Your task to perform on an android device: change the clock style Image 0: 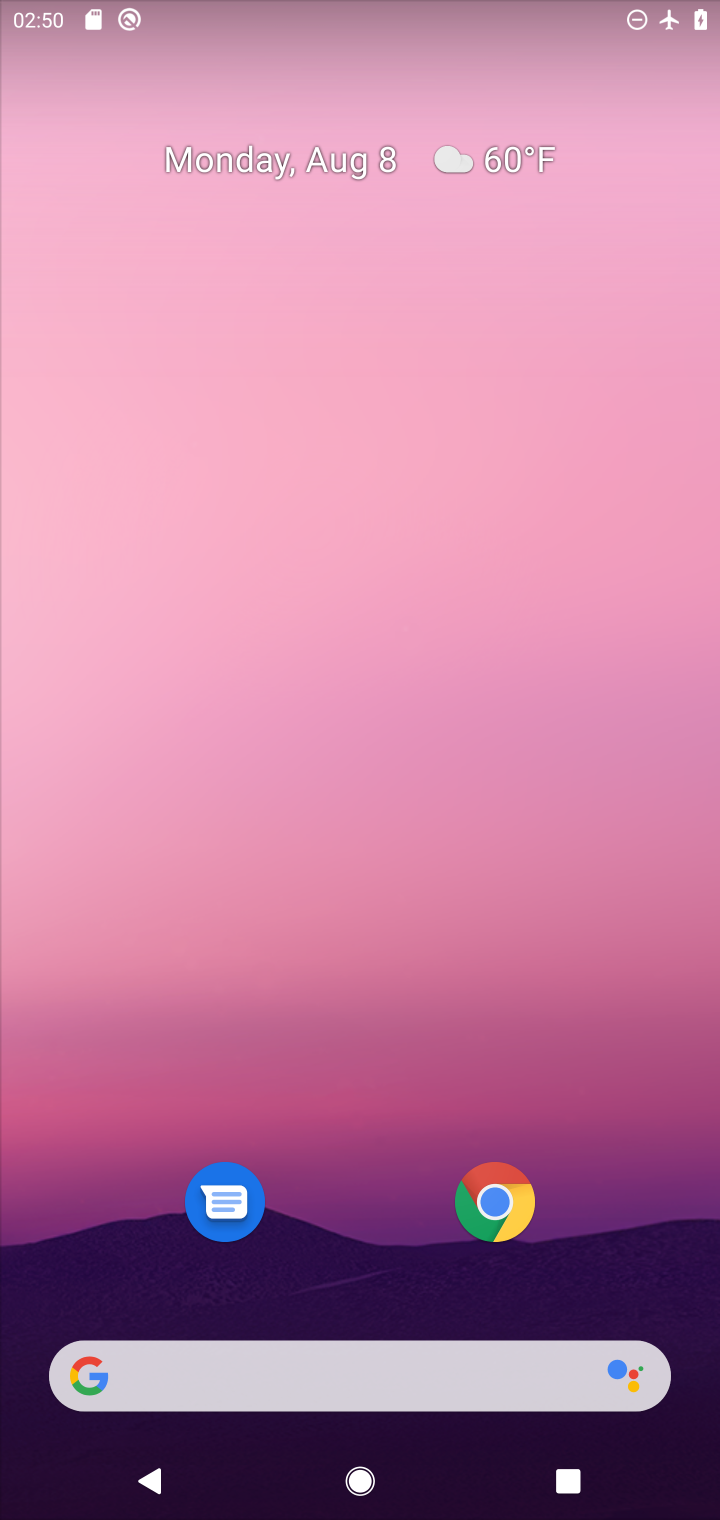
Step 0: press home button
Your task to perform on an android device: change the clock style Image 1: 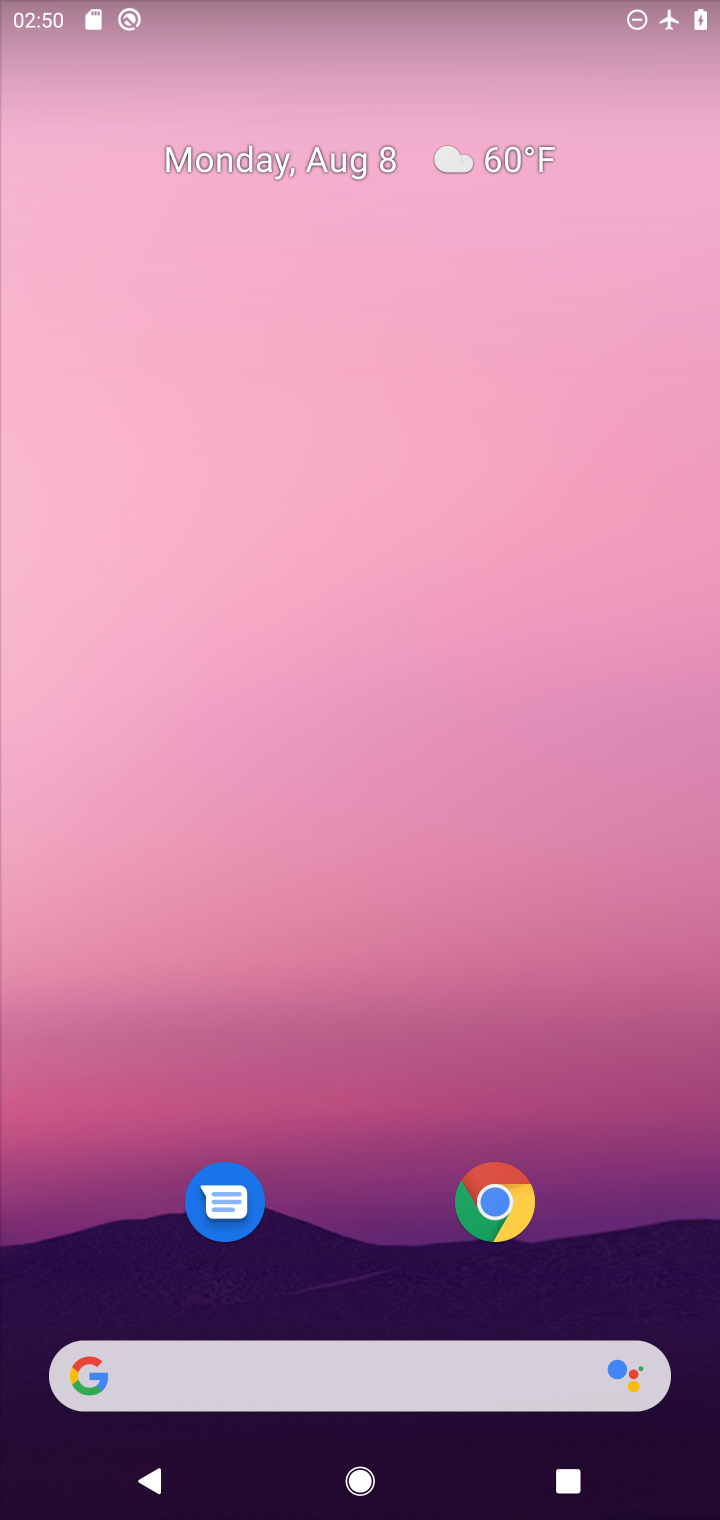
Step 1: drag from (373, 1190) to (526, 276)
Your task to perform on an android device: change the clock style Image 2: 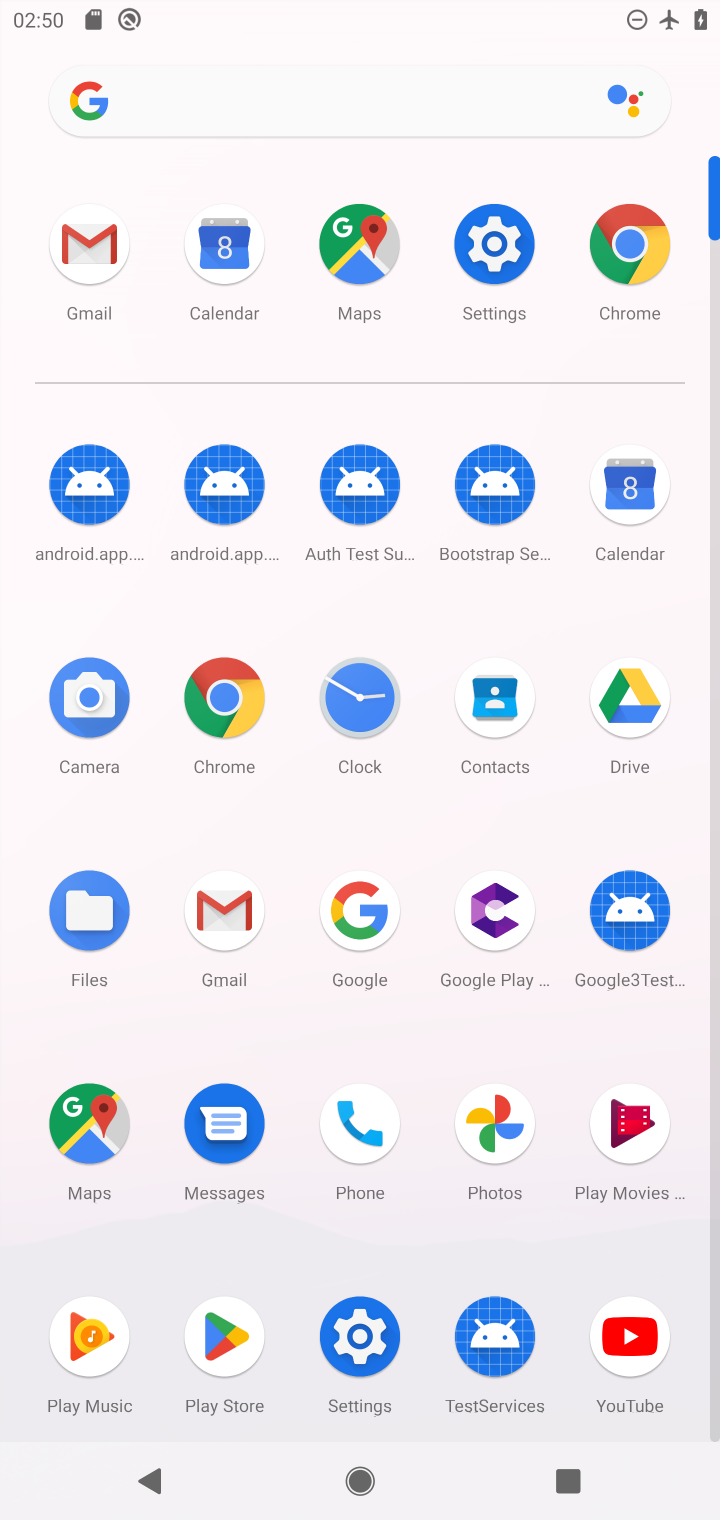
Step 2: click (357, 711)
Your task to perform on an android device: change the clock style Image 3: 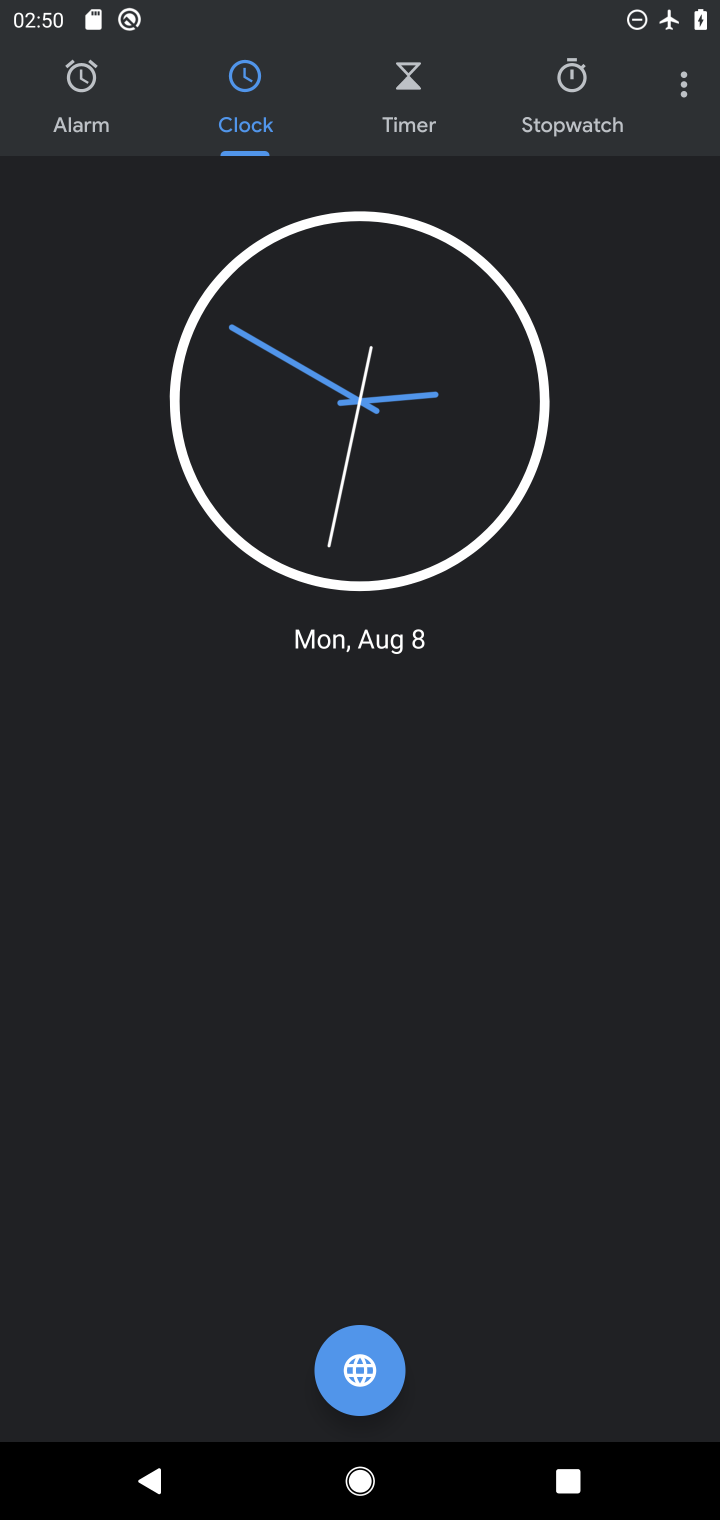
Step 3: click (681, 96)
Your task to perform on an android device: change the clock style Image 4: 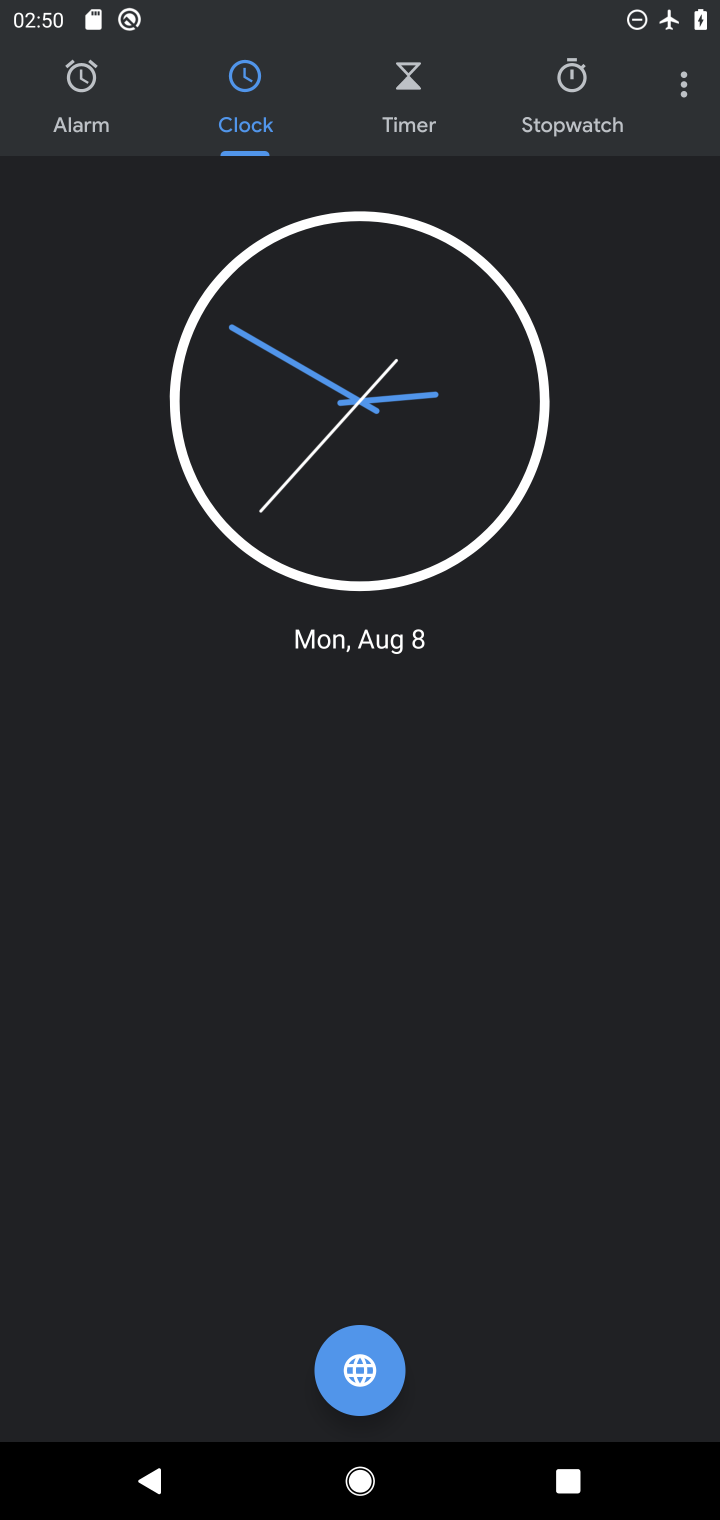
Step 4: click (688, 87)
Your task to perform on an android device: change the clock style Image 5: 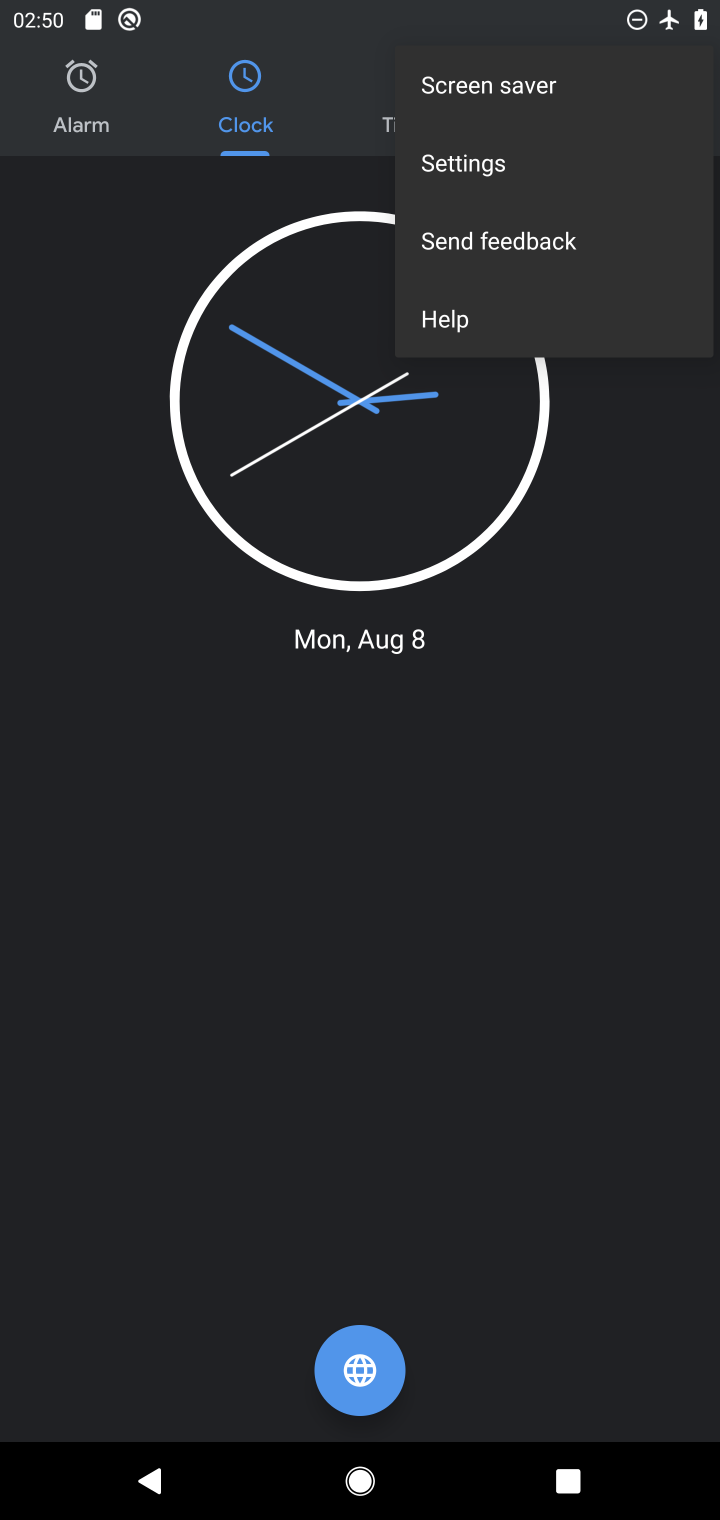
Step 5: click (534, 156)
Your task to perform on an android device: change the clock style Image 6: 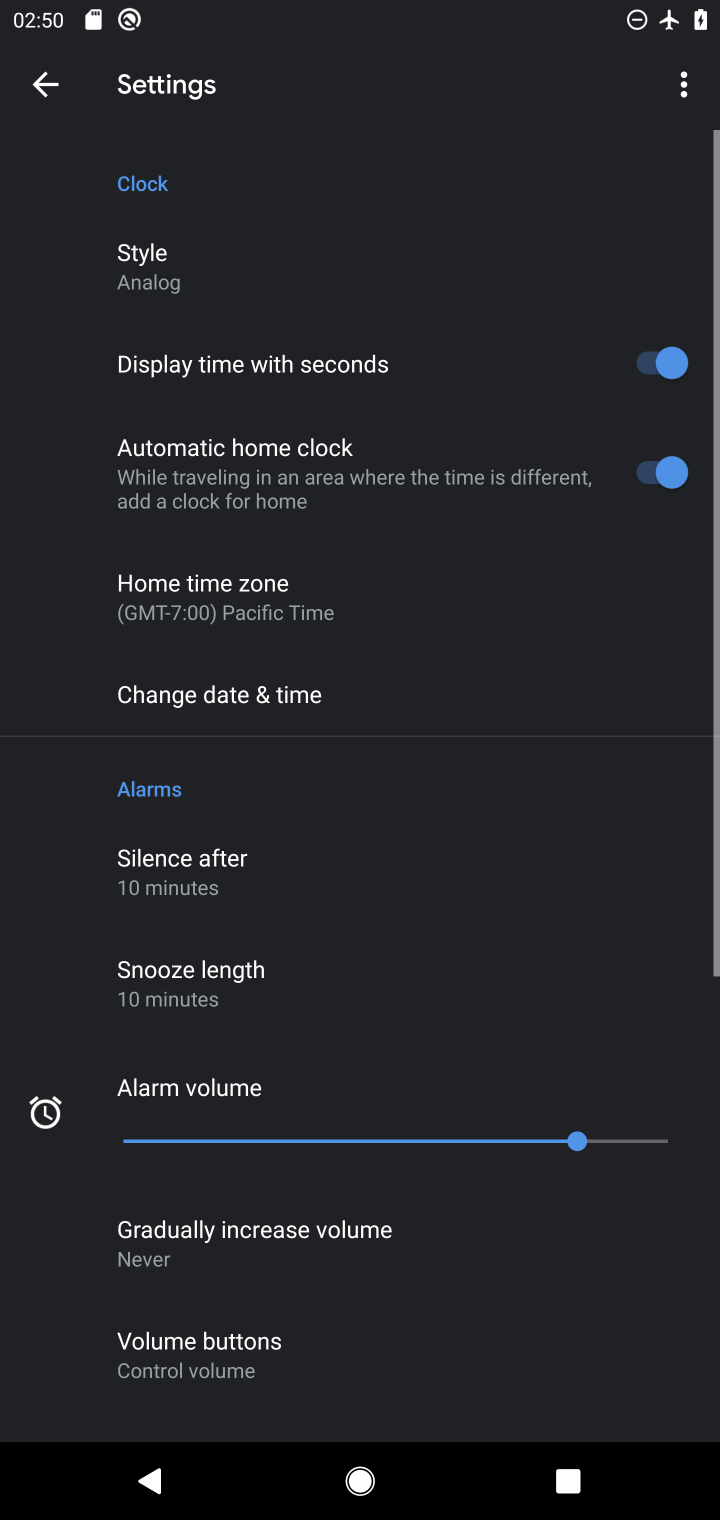
Step 6: drag from (491, 682) to (534, 389)
Your task to perform on an android device: change the clock style Image 7: 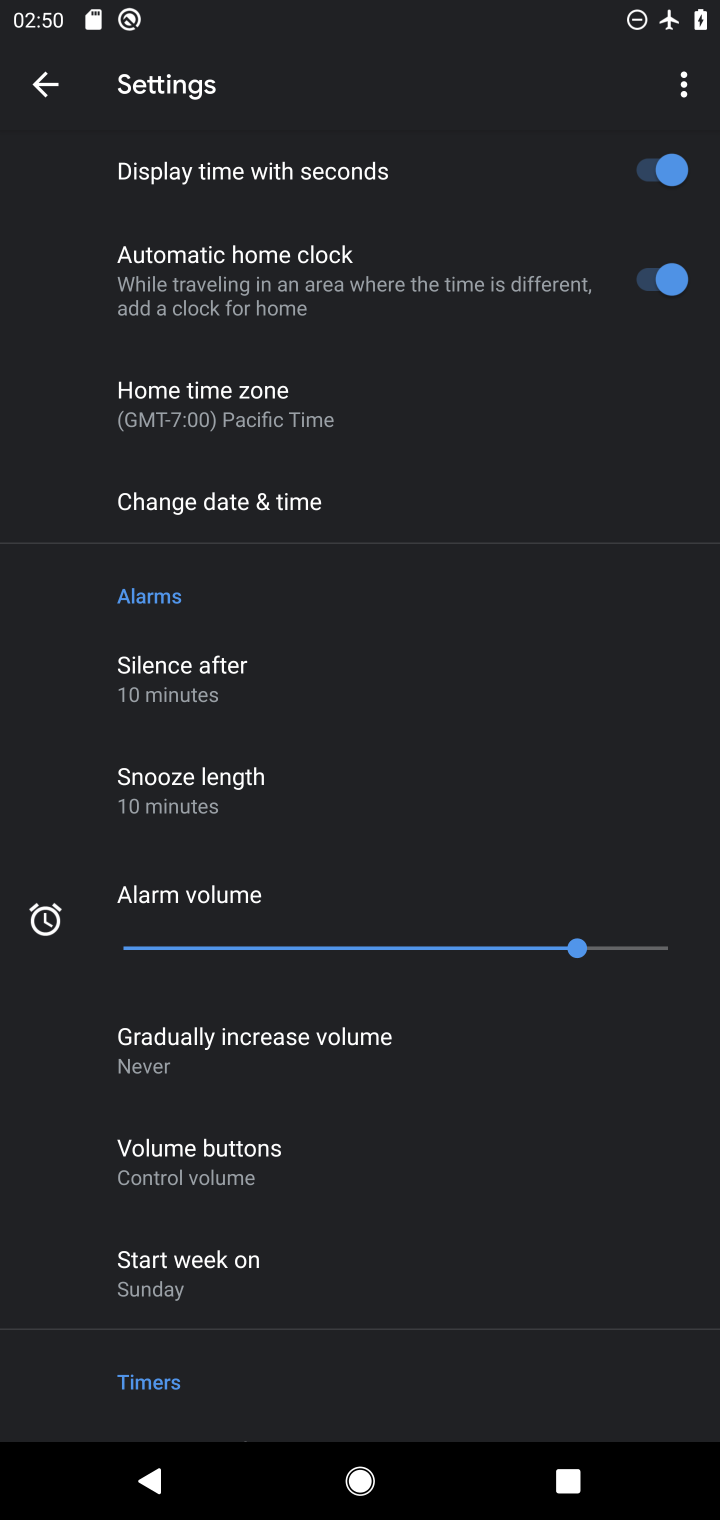
Step 7: drag from (493, 723) to (523, 454)
Your task to perform on an android device: change the clock style Image 8: 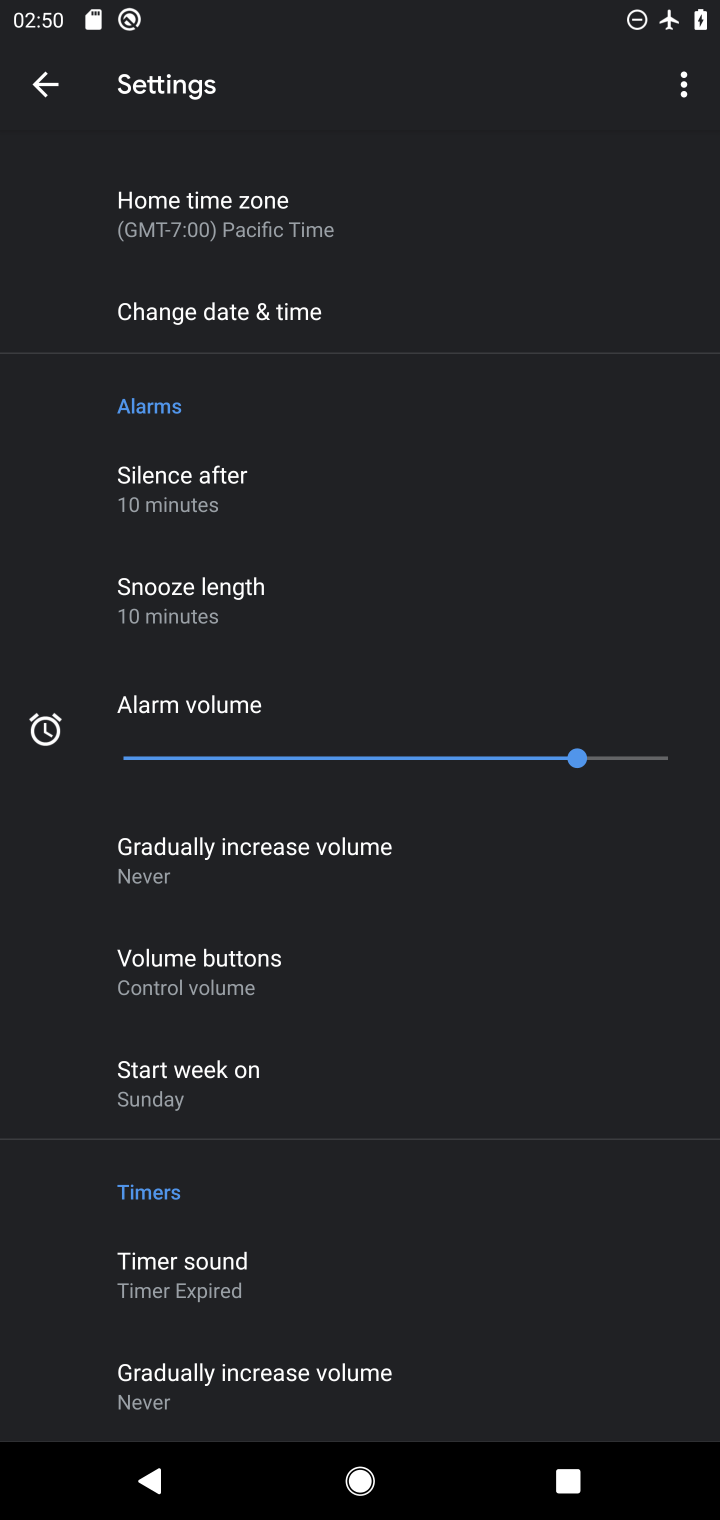
Step 8: drag from (520, 654) to (549, 463)
Your task to perform on an android device: change the clock style Image 9: 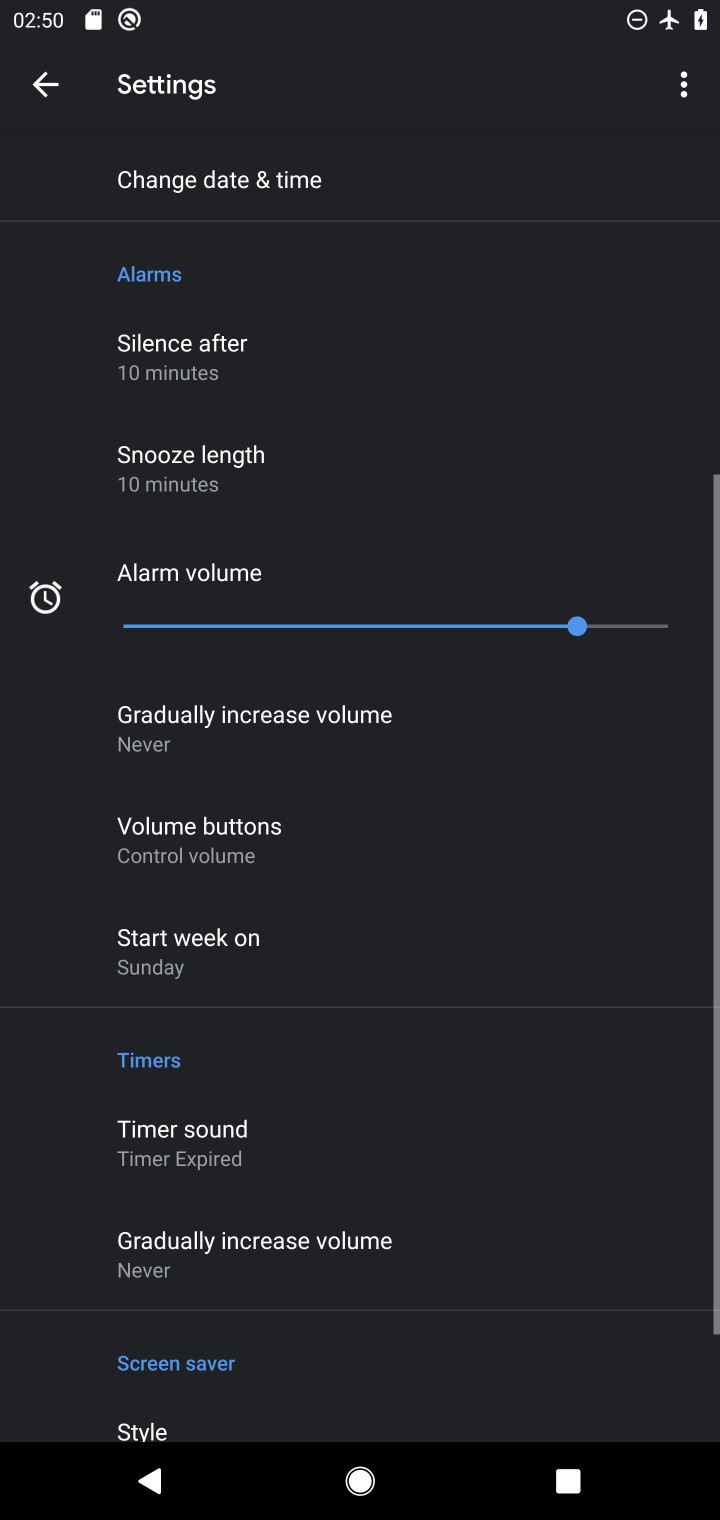
Step 9: drag from (541, 886) to (570, 520)
Your task to perform on an android device: change the clock style Image 10: 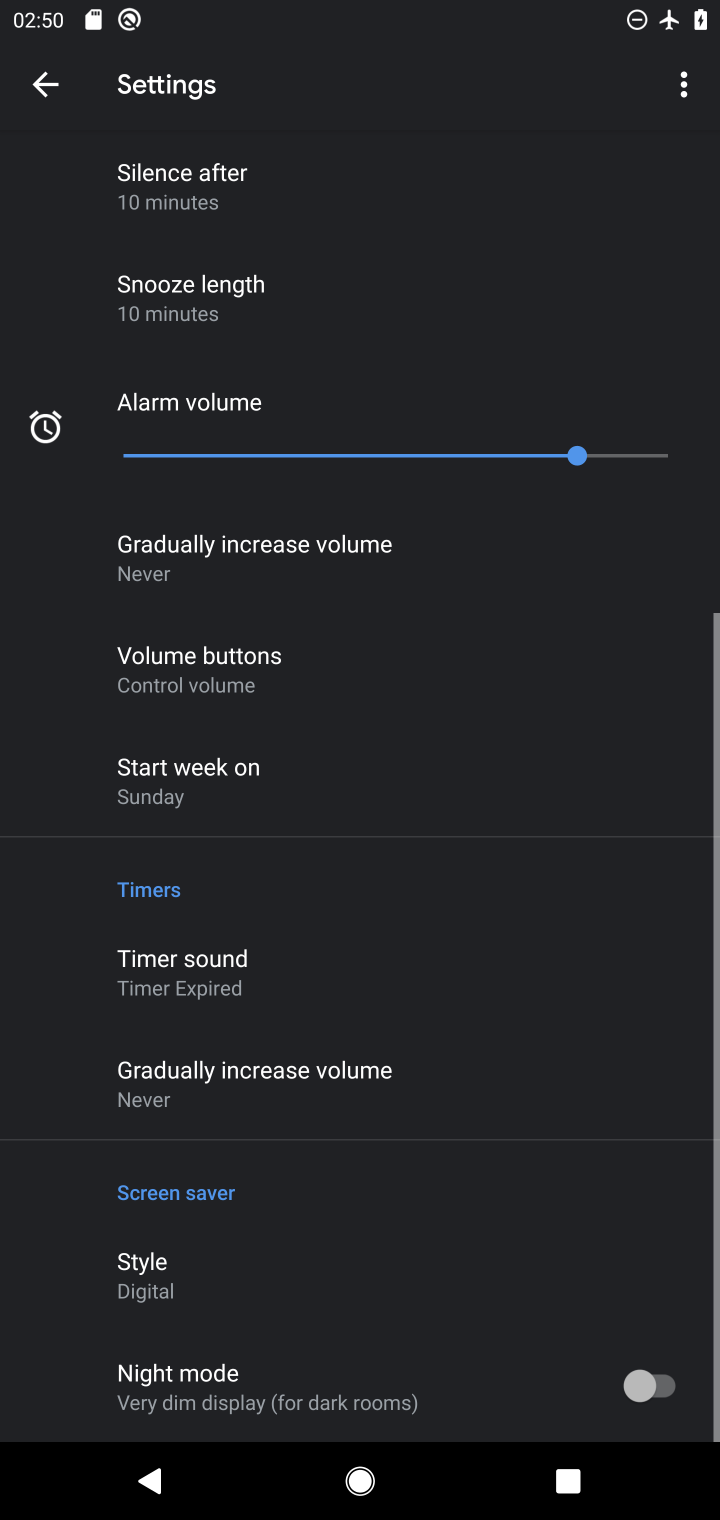
Step 10: drag from (514, 917) to (533, 601)
Your task to perform on an android device: change the clock style Image 11: 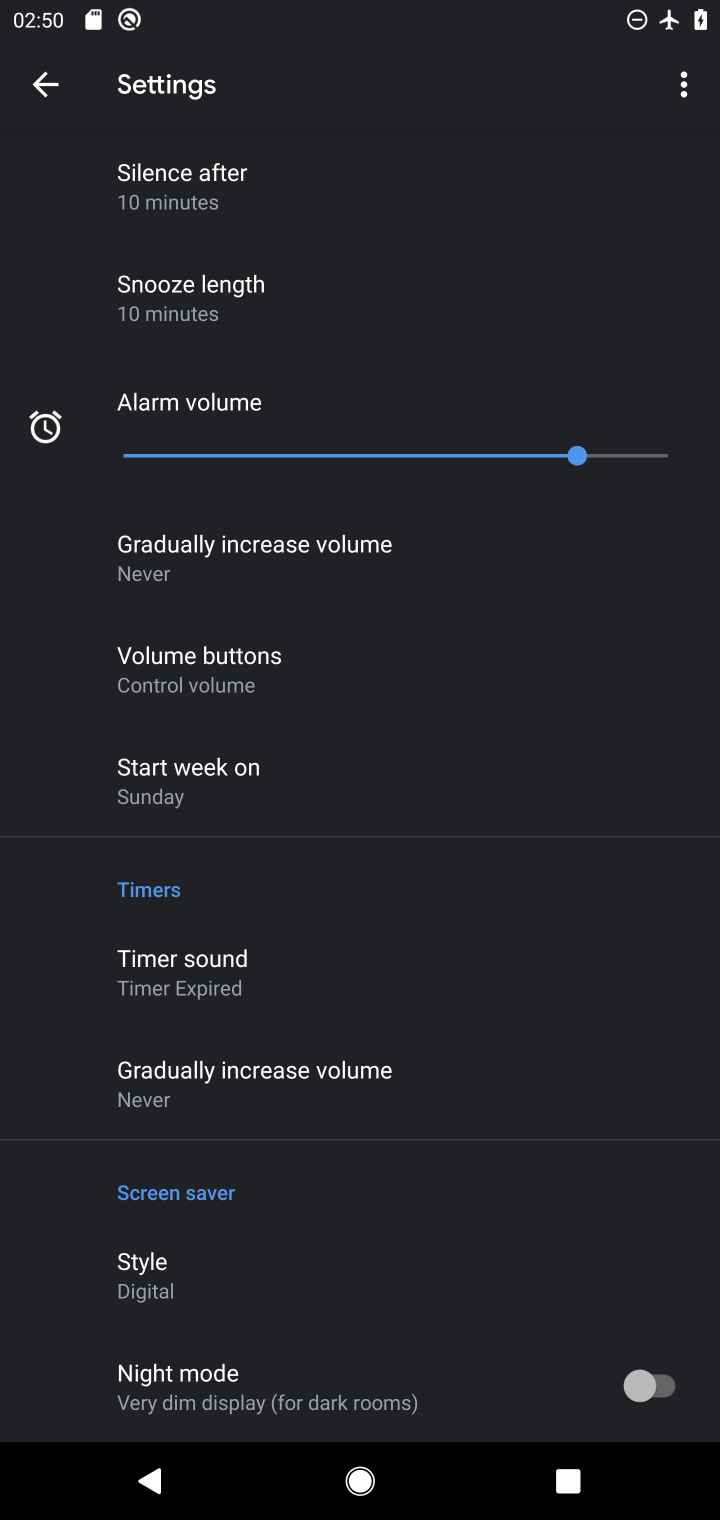
Step 11: drag from (505, 704) to (503, 880)
Your task to perform on an android device: change the clock style Image 12: 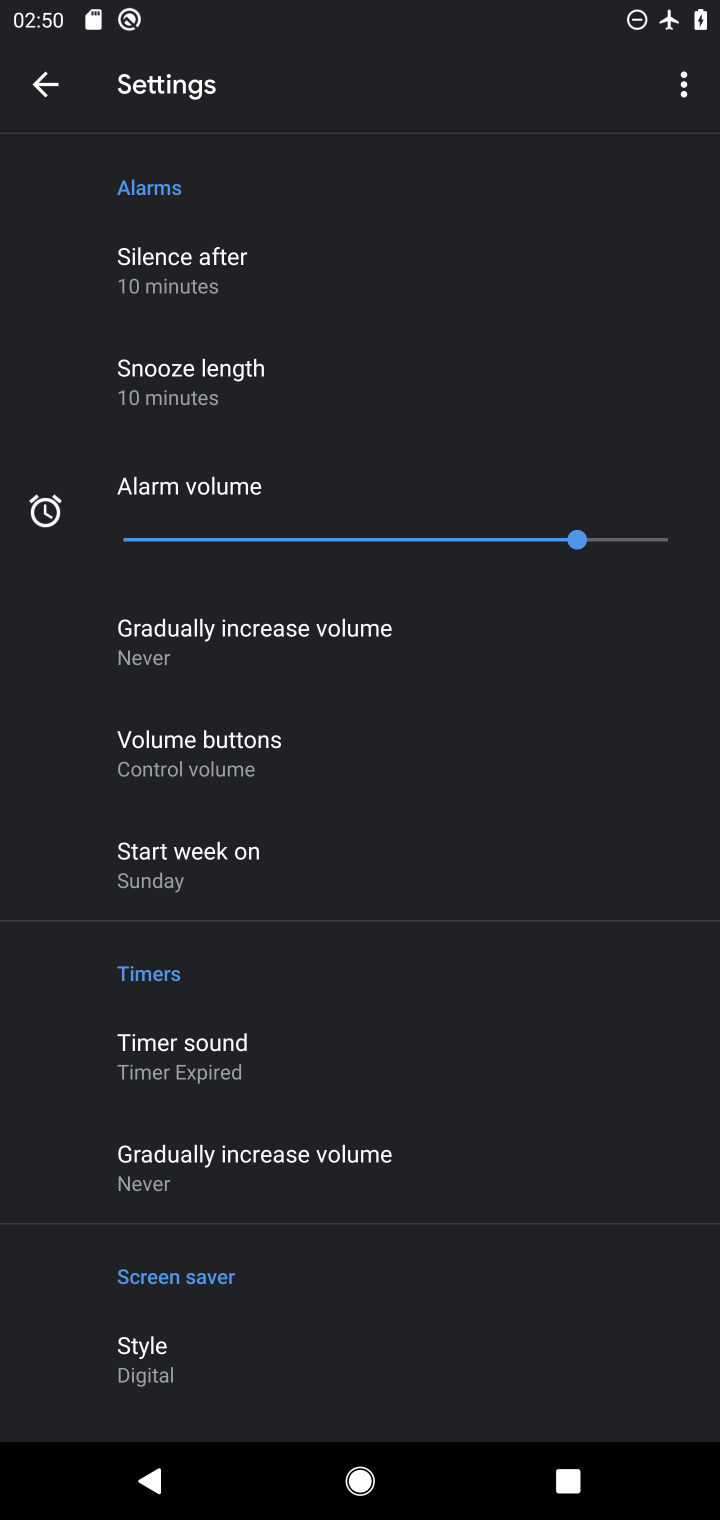
Step 12: drag from (505, 506) to (485, 751)
Your task to perform on an android device: change the clock style Image 13: 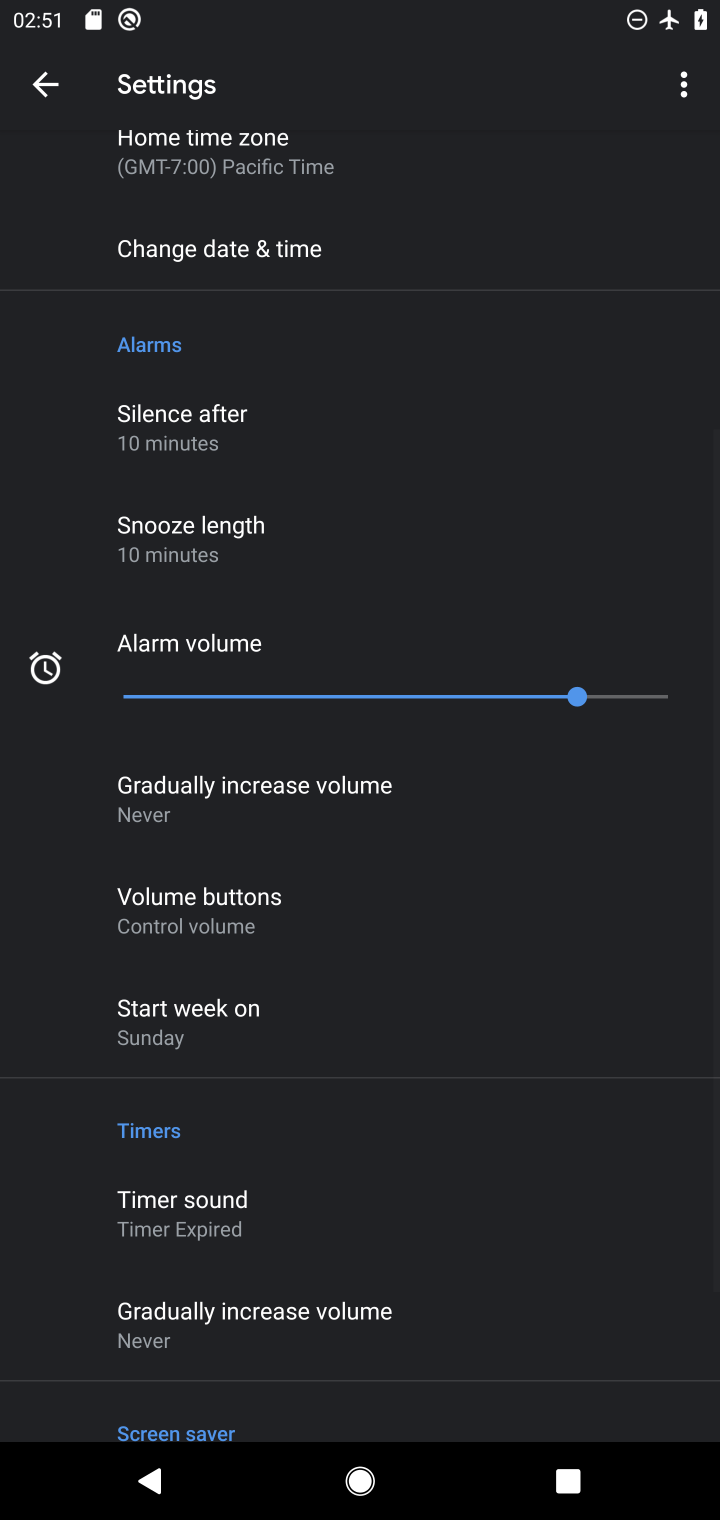
Step 13: drag from (515, 380) to (472, 746)
Your task to perform on an android device: change the clock style Image 14: 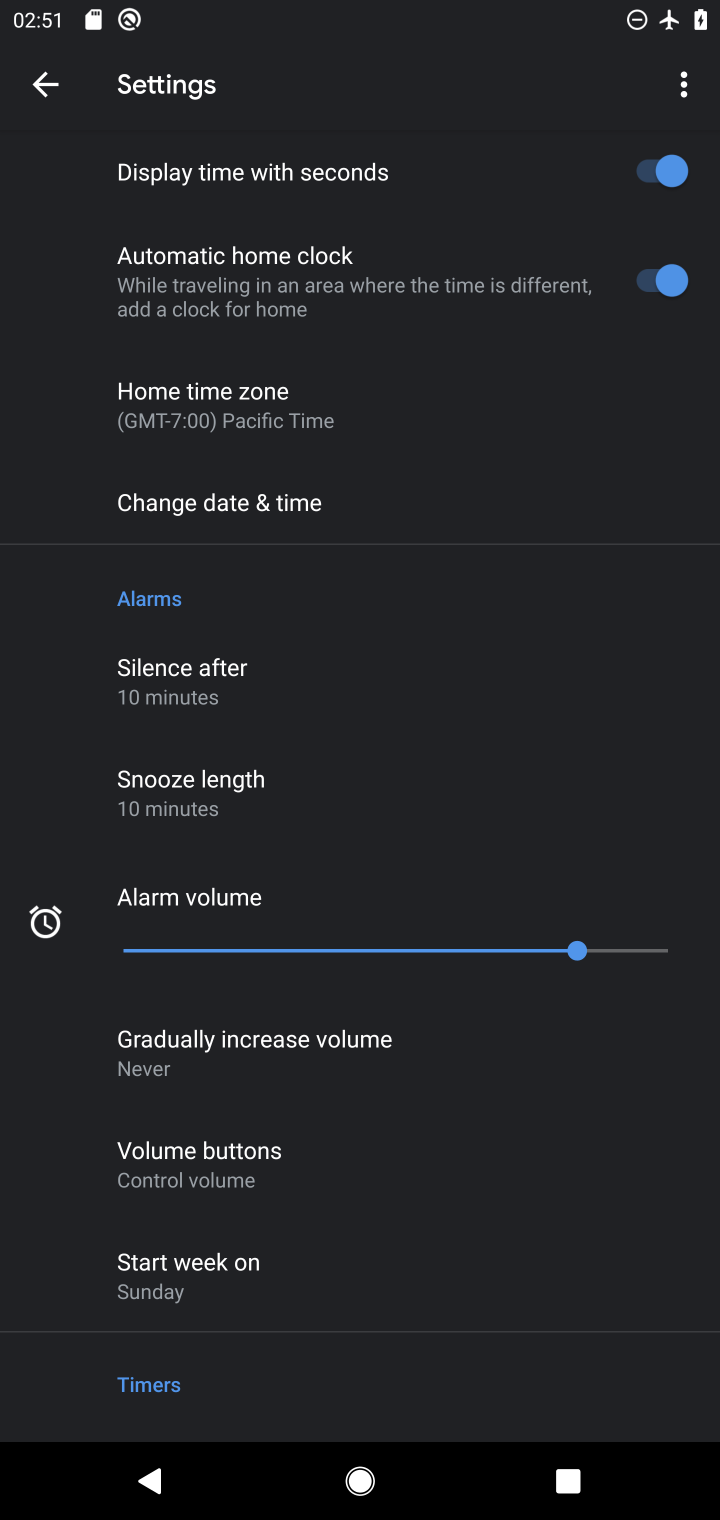
Step 14: drag from (490, 177) to (474, 592)
Your task to perform on an android device: change the clock style Image 15: 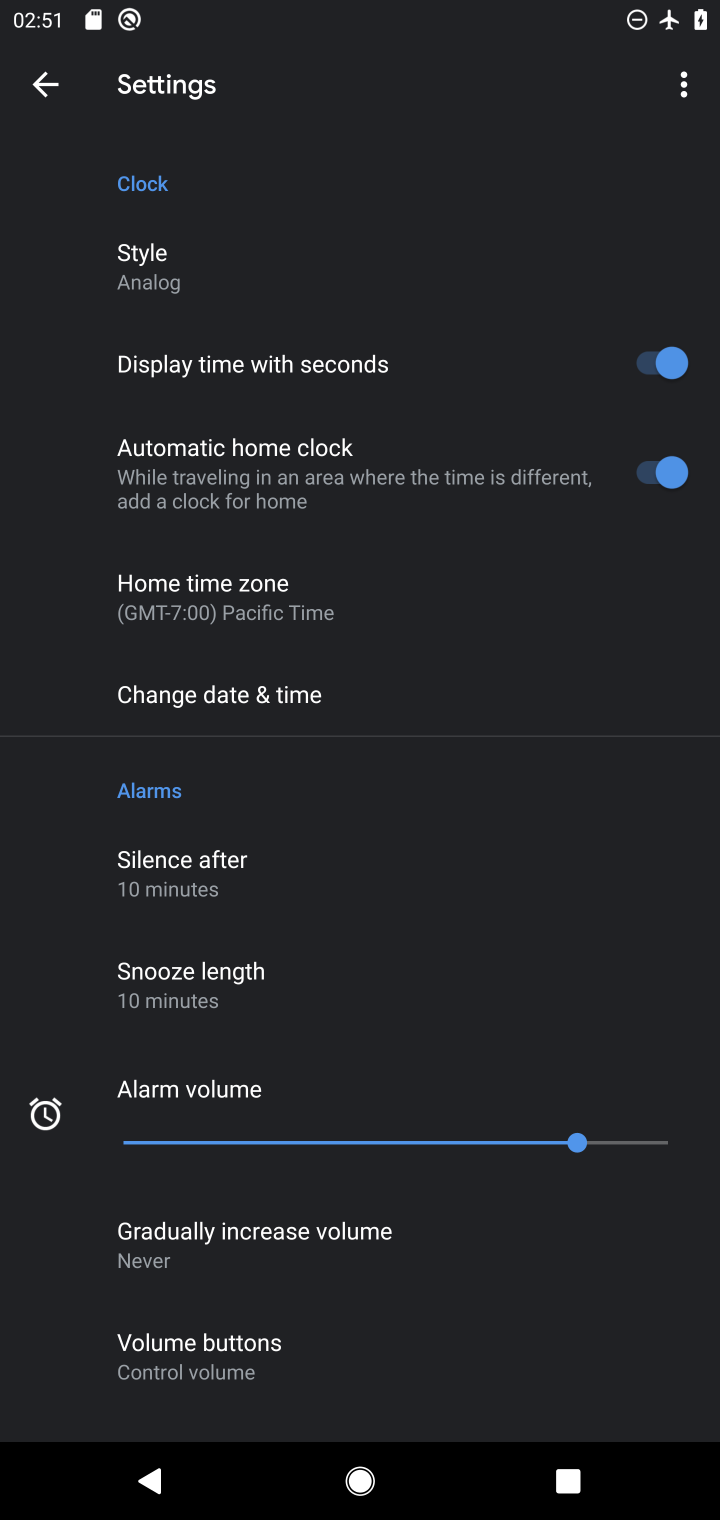
Step 15: drag from (441, 346) to (421, 767)
Your task to perform on an android device: change the clock style Image 16: 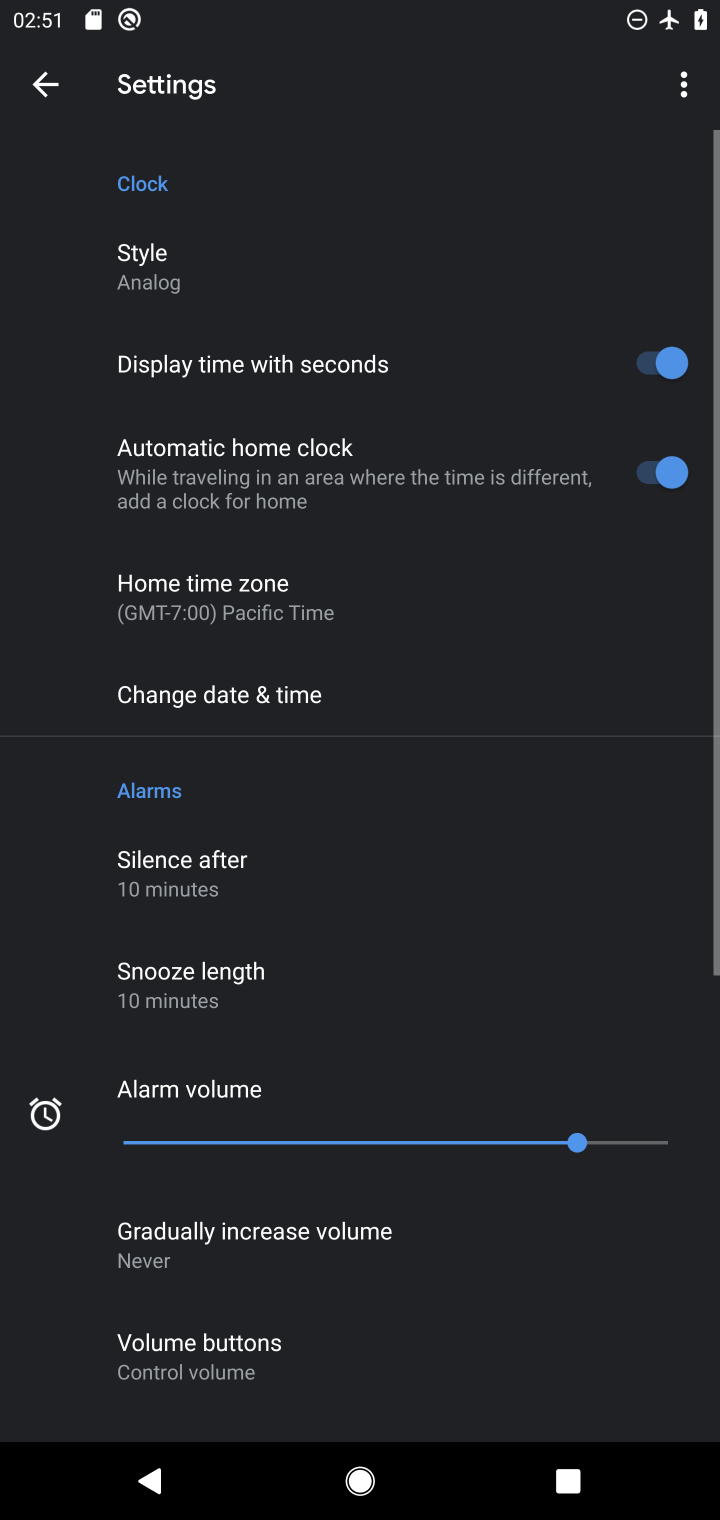
Step 16: click (240, 276)
Your task to perform on an android device: change the clock style Image 17: 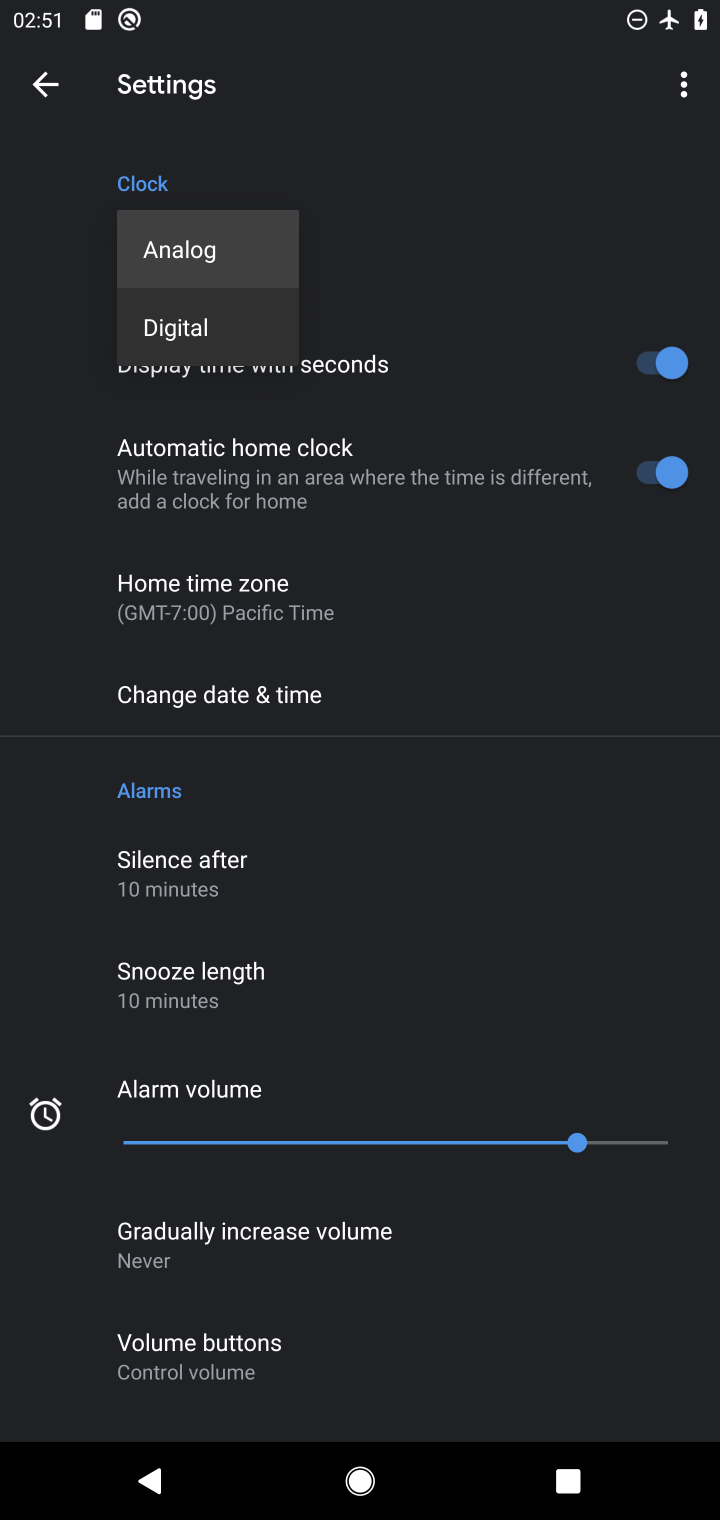
Step 17: click (219, 321)
Your task to perform on an android device: change the clock style Image 18: 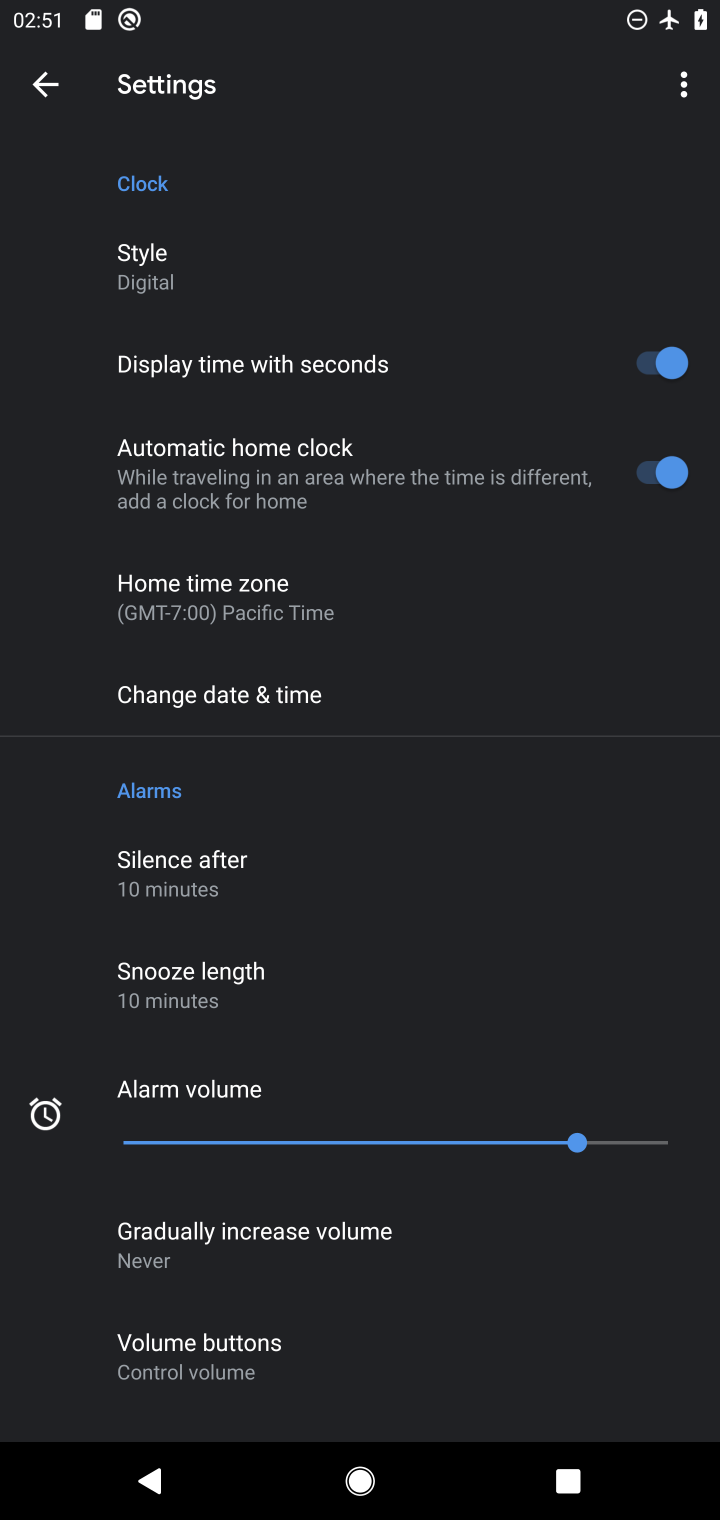
Step 18: task complete